Your task to perform on an android device: turn on wifi Image 0: 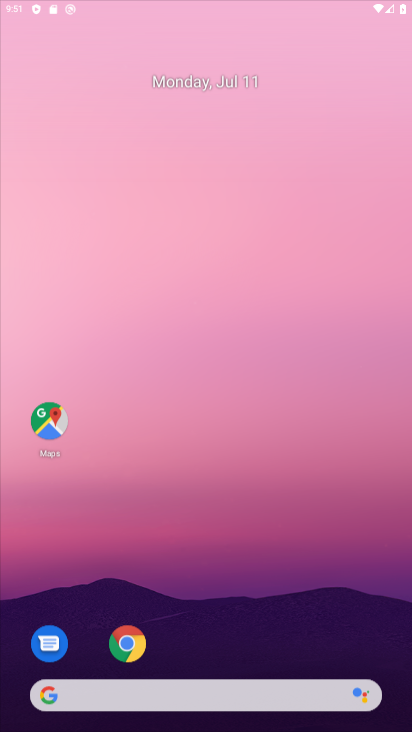
Step 0: drag from (242, 23) to (207, 8)
Your task to perform on an android device: turn on wifi Image 1: 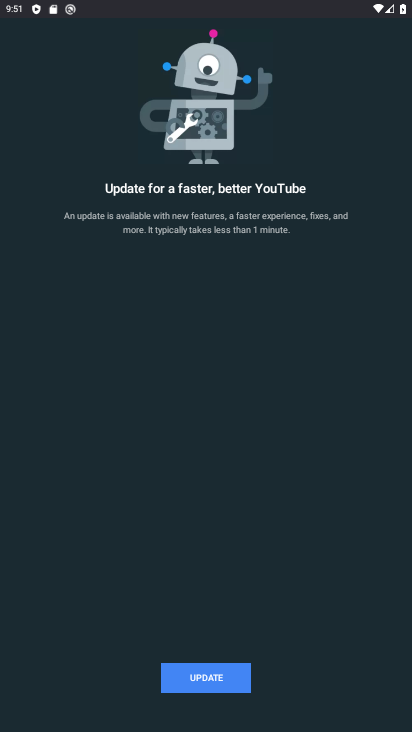
Step 1: press back button
Your task to perform on an android device: turn on wifi Image 2: 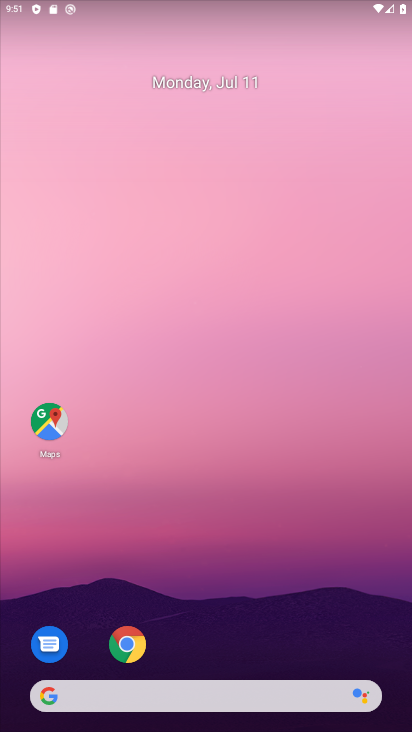
Step 2: drag from (330, 587) to (285, 93)
Your task to perform on an android device: turn on wifi Image 3: 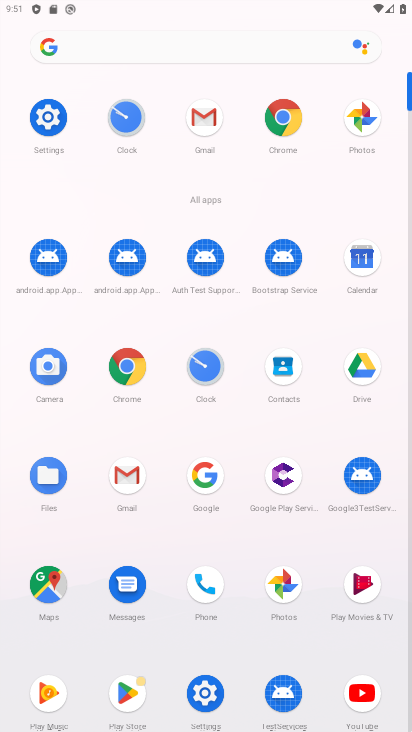
Step 3: click (51, 118)
Your task to perform on an android device: turn on wifi Image 4: 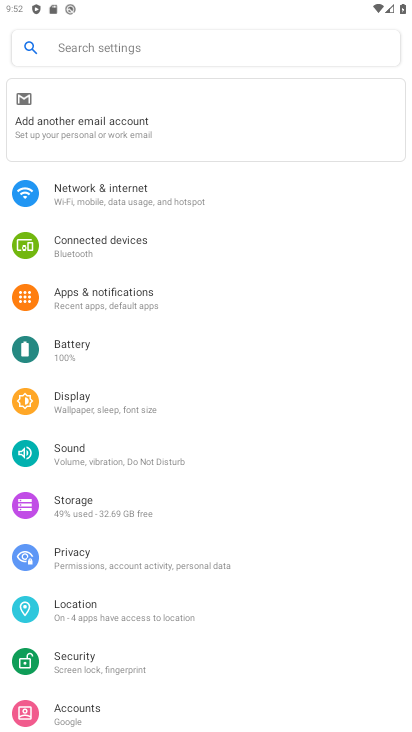
Step 4: click (121, 200)
Your task to perform on an android device: turn on wifi Image 5: 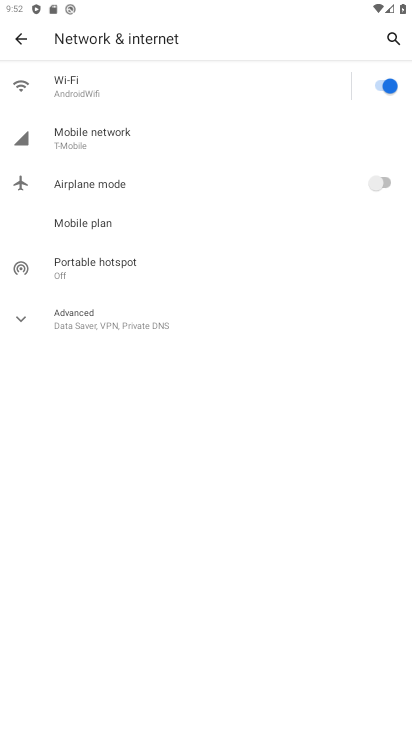
Step 5: task complete